Your task to perform on an android device: Show me popular games on the Play Store Image 0: 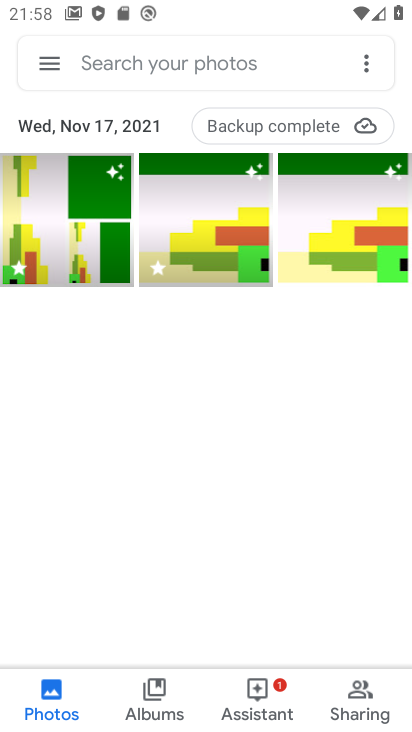
Step 0: press home button
Your task to perform on an android device: Show me popular games on the Play Store Image 1: 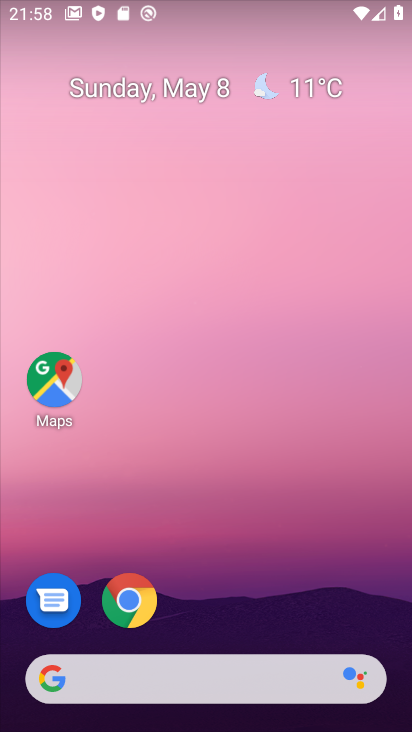
Step 1: drag from (205, 632) to (209, 239)
Your task to perform on an android device: Show me popular games on the Play Store Image 2: 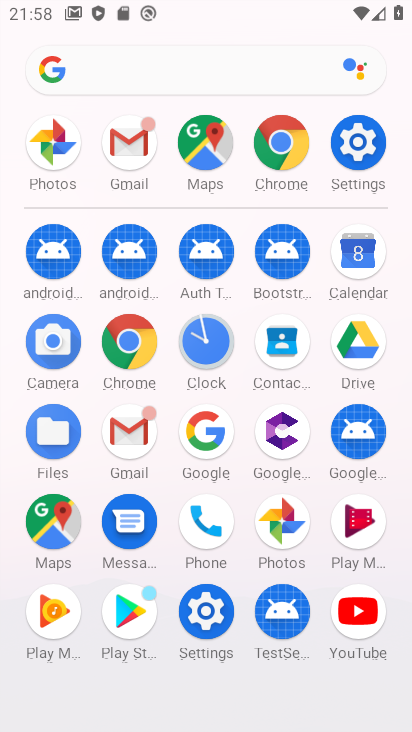
Step 2: click (131, 609)
Your task to perform on an android device: Show me popular games on the Play Store Image 3: 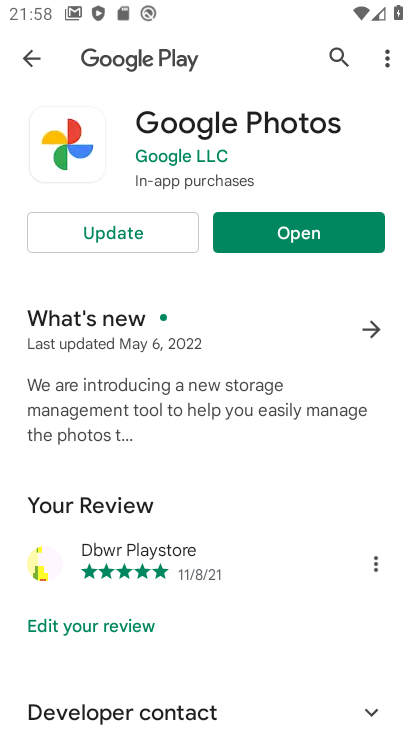
Step 3: click (38, 64)
Your task to perform on an android device: Show me popular games on the Play Store Image 4: 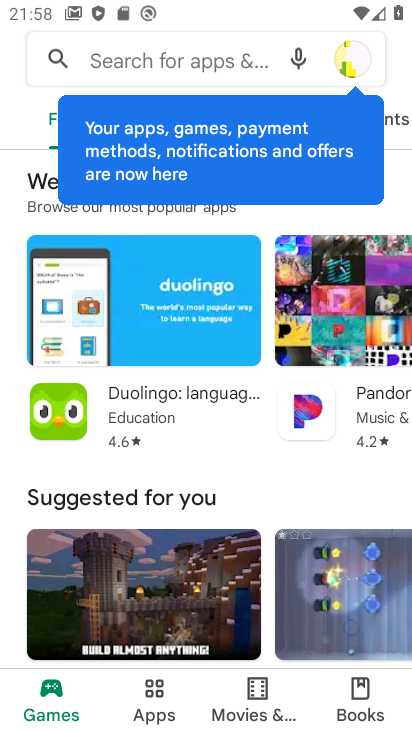
Step 4: click (303, 225)
Your task to perform on an android device: Show me popular games on the Play Store Image 5: 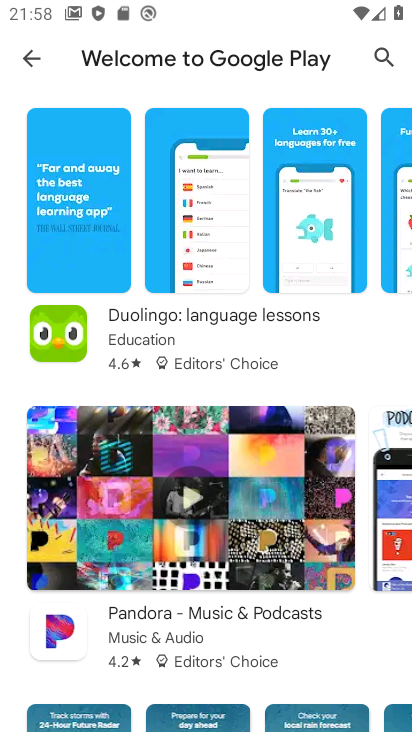
Step 5: click (42, 71)
Your task to perform on an android device: Show me popular games on the Play Store Image 6: 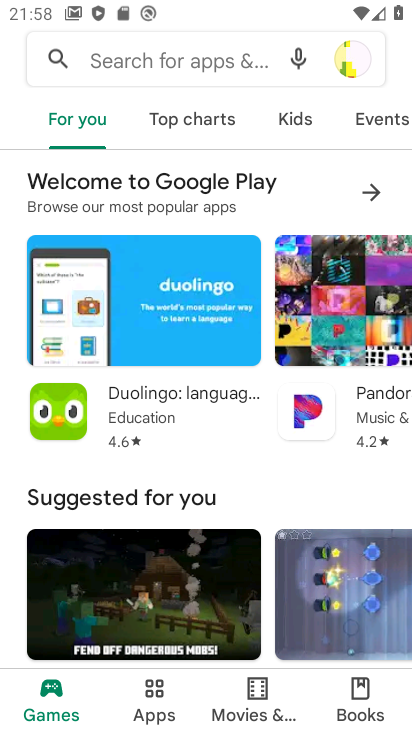
Step 6: click (172, 115)
Your task to perform on an android device: Show me popular games on the Play Store Image 7: 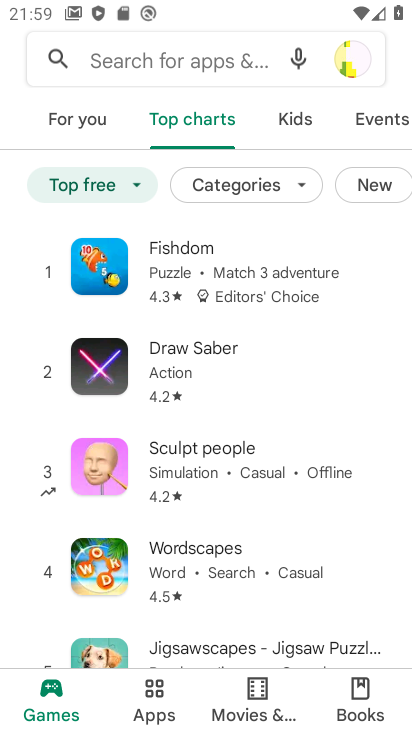
Step 7: task complete